Your task to perform on an android device: Open Chrome and go to settings Image 0: 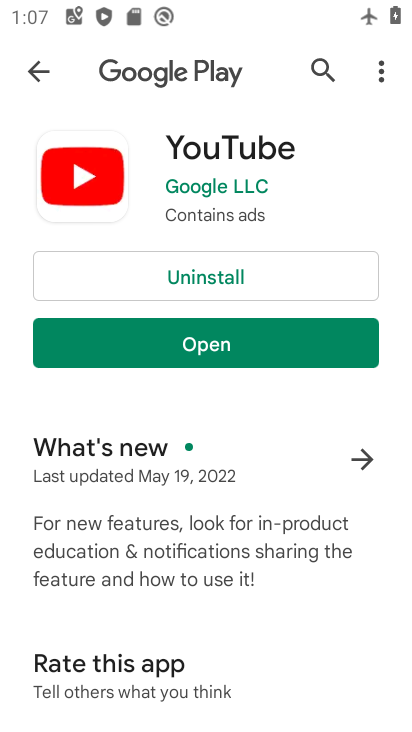
Step 0: press home button
Your task to perform on an android device: Open Chrome and go to settings Image 1: 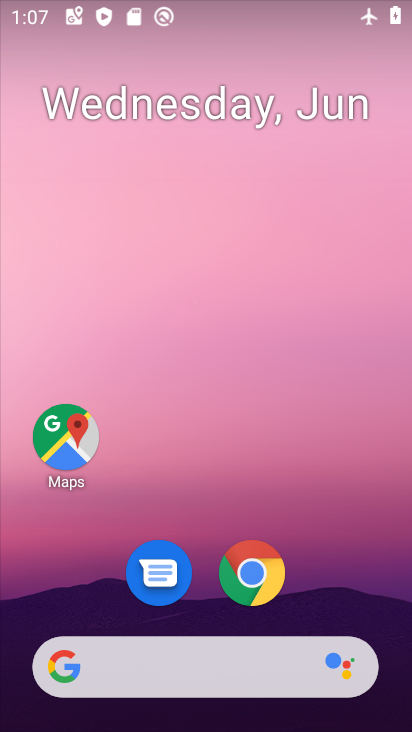
Step 1: drag from (311, 9) to (328, 446)
Your task to perform on an android device: Open Chrome and go to settings Image 2: 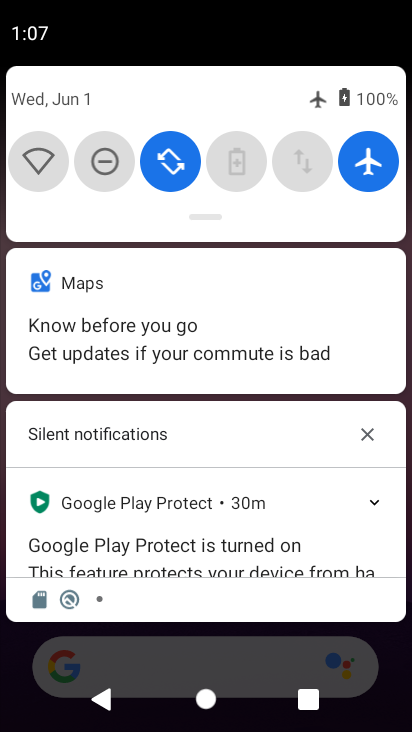
Step 2: click (383, 171)
Your task to perform on an android device: Open Chrome and go to settings Image 3: 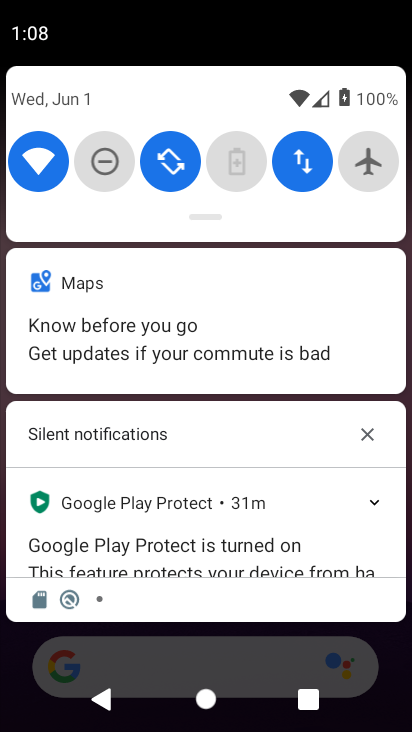
Step 3: drag from (218, 615) to (214, 148)
Your task to perform on an android device: Open Chrome and go to settings Image 4: 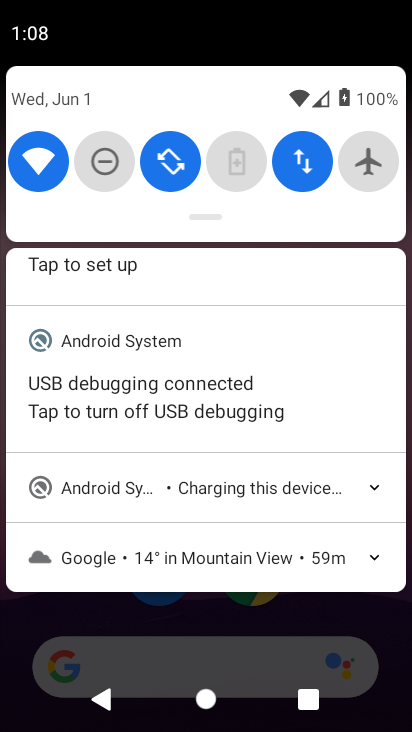
Step 4: drag from (266, 557) to (220, 72)
Your task to perform on an android device: Open Chrome and go to settings Image 5: 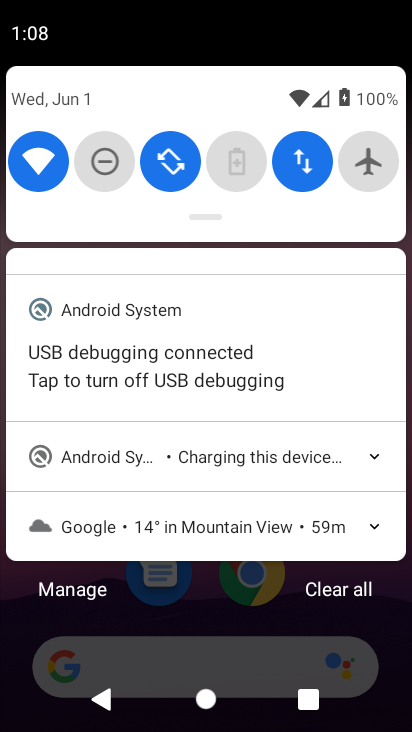
Step 5: drag from (273, 430) to (237, 43)
Your task to perform on an android device: Open Chrome and go to settings Image 6: 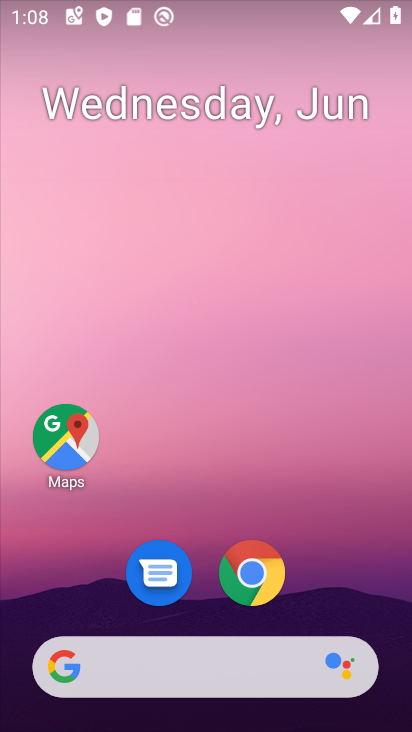
Step 6: drag from (330, 590) to (314, 15)
Your task to perform on an android device: Open Chrome and go to settings Image 7: 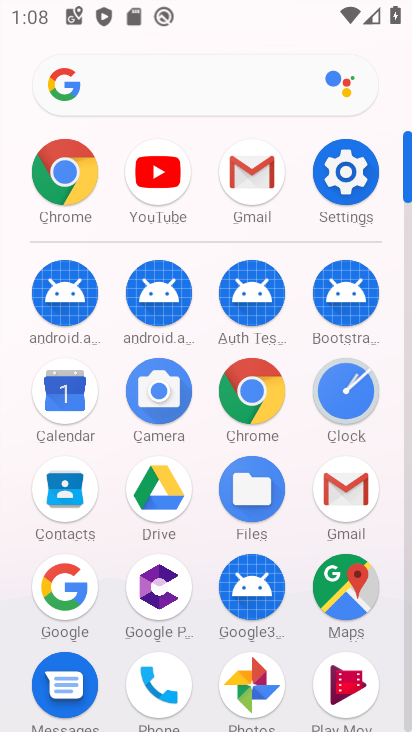
Step 7: click (256, 401)
Your task to perform on an android device: Open Chrome and go to settings Image 8: 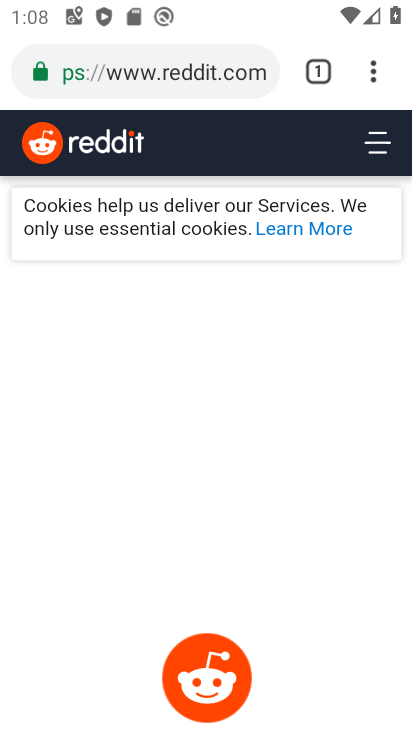
Step 8: task complete